Your task to perform on an android device: see sites visited before in the chrome app Image 0: 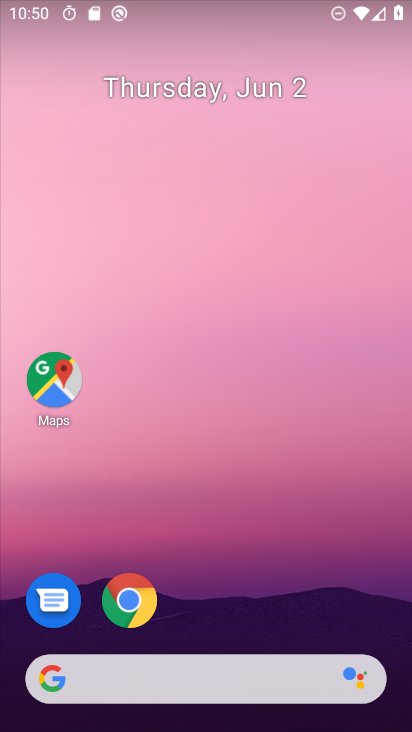
Step 0: drag from (204, 603) to (226, 1)
Your task to perform on an android device: see sites visited before in the chrome app Image 1: 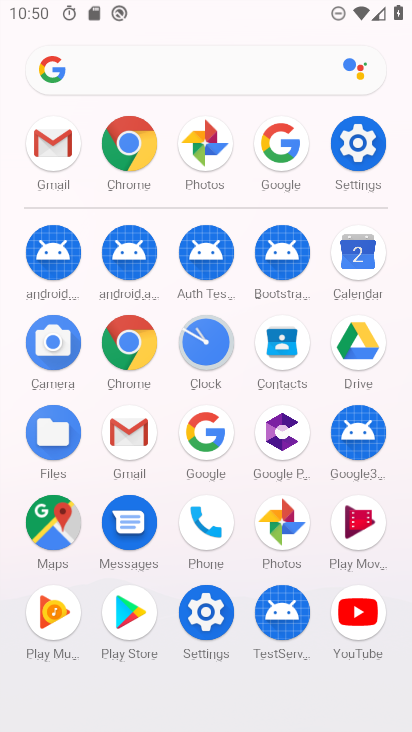
Step 1: click (117, 144)
Your task to perform on an android device: see sites visited before in the chrome app Image 2: 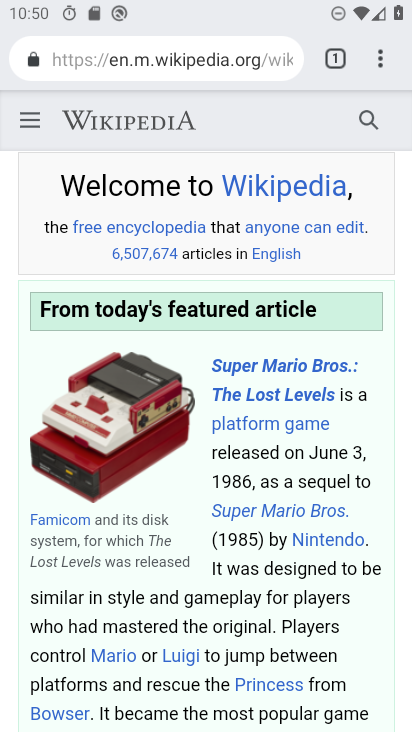
Step 2: click (378, 49)
Your task to perform on an android device: see sites visited before in the chrome app Image 3: 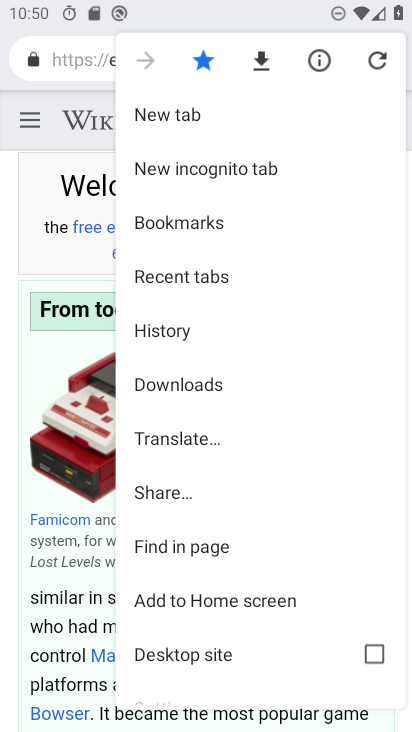
Step 3: click (188, 319)
Your task to perform on an android device: see sites visited before in the chrome app Image 4: 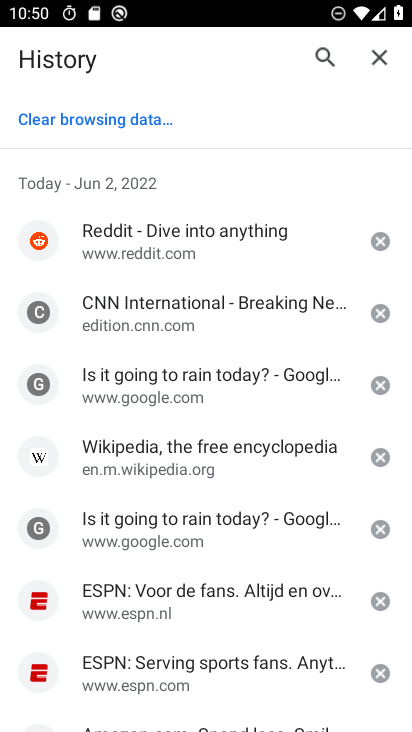
Step 4: task complete